Your task to perform on an android device: uninstall "Airtel Thanks" Image 0: 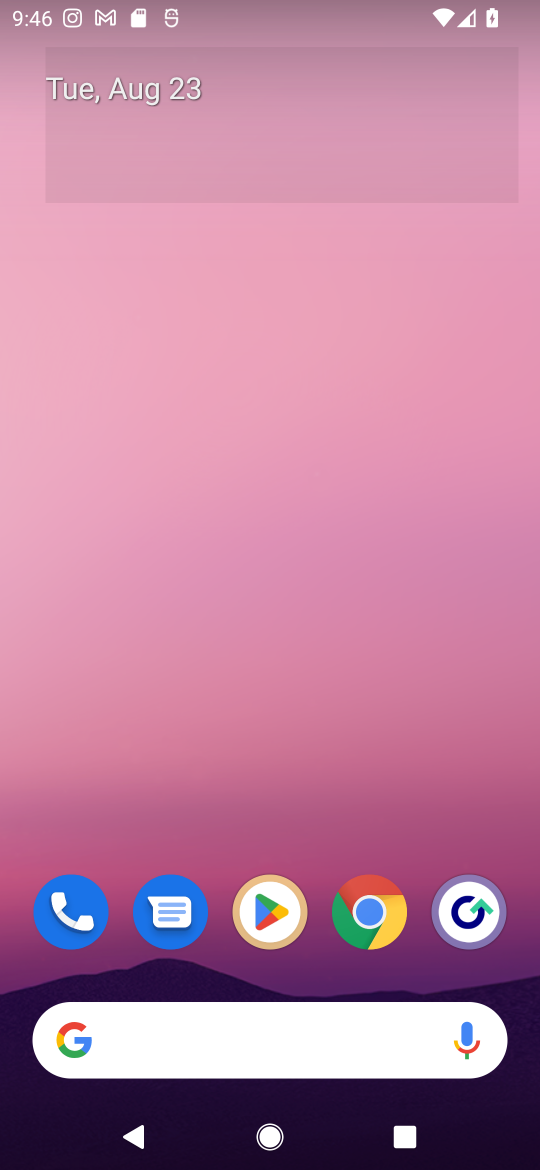
Step 0: click (271, 922)
Your task to perform on an android device: uninstall "Airtel Thanks" Image 1: 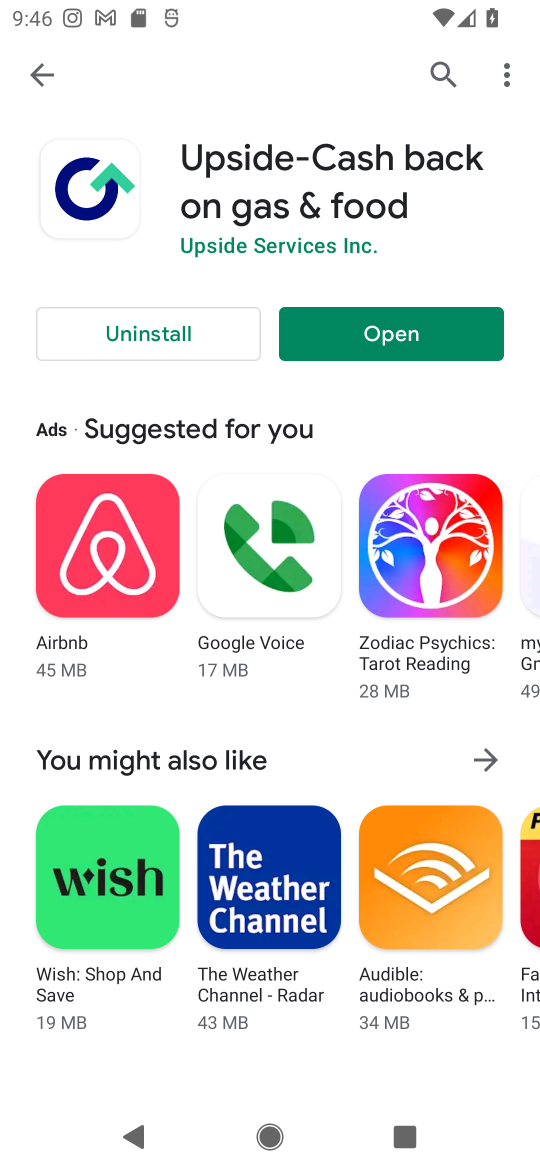
Step 1: click (441, 70)
Your task to perform on an android device: uninstall "Airtel Thanks" Image 2: 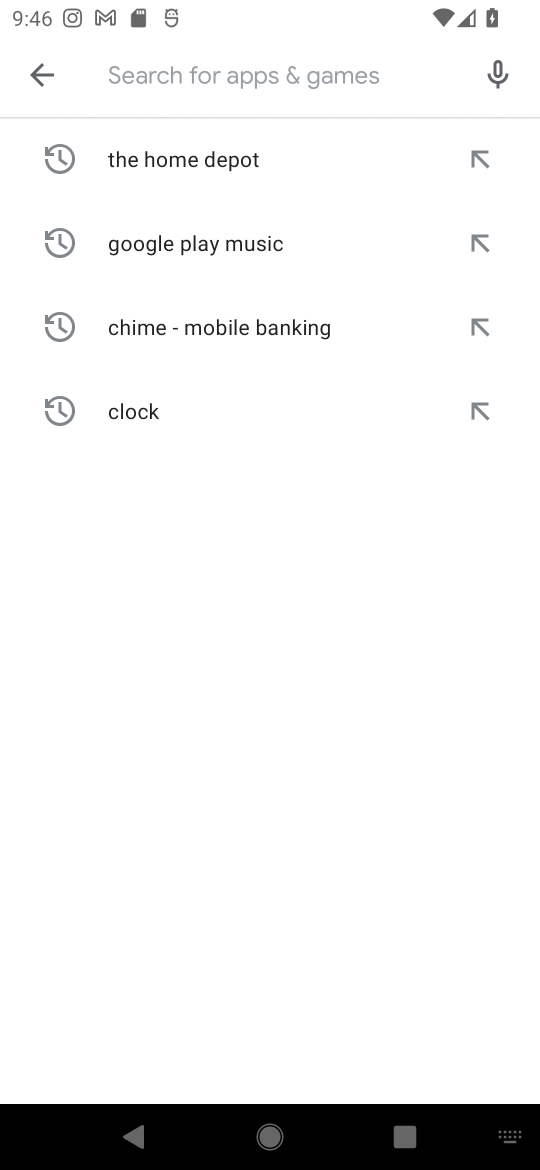
Step 2: type "Airtel Thanks"
Your task to perform on an android device: uninstall "Airtel Thanks" Image 3: 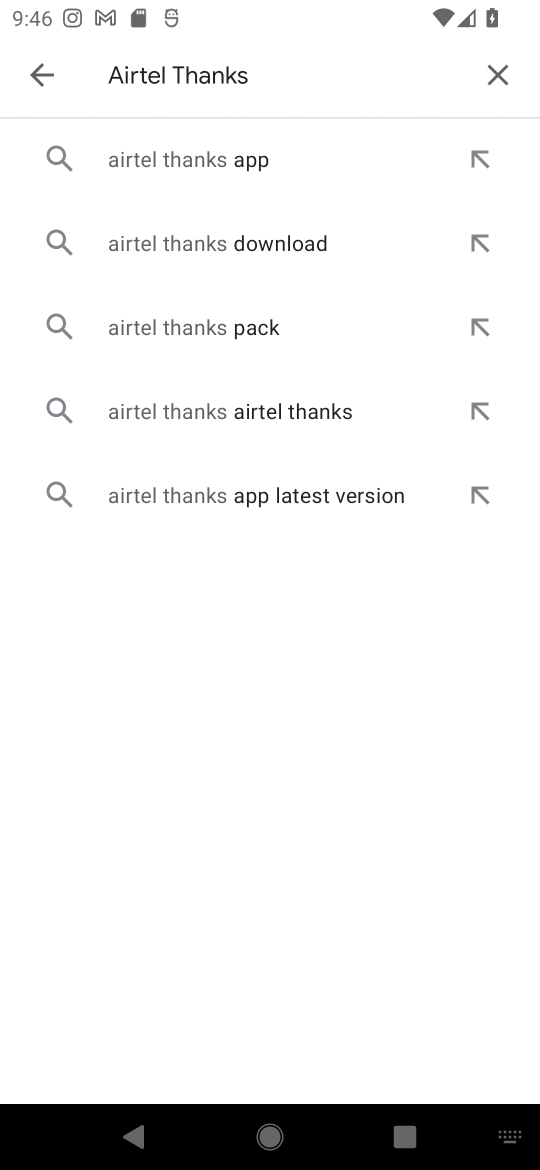
Step 3: click (197, 152)
Your task to perform on an android device: uninstall "Airtel Thanks" Image 4: 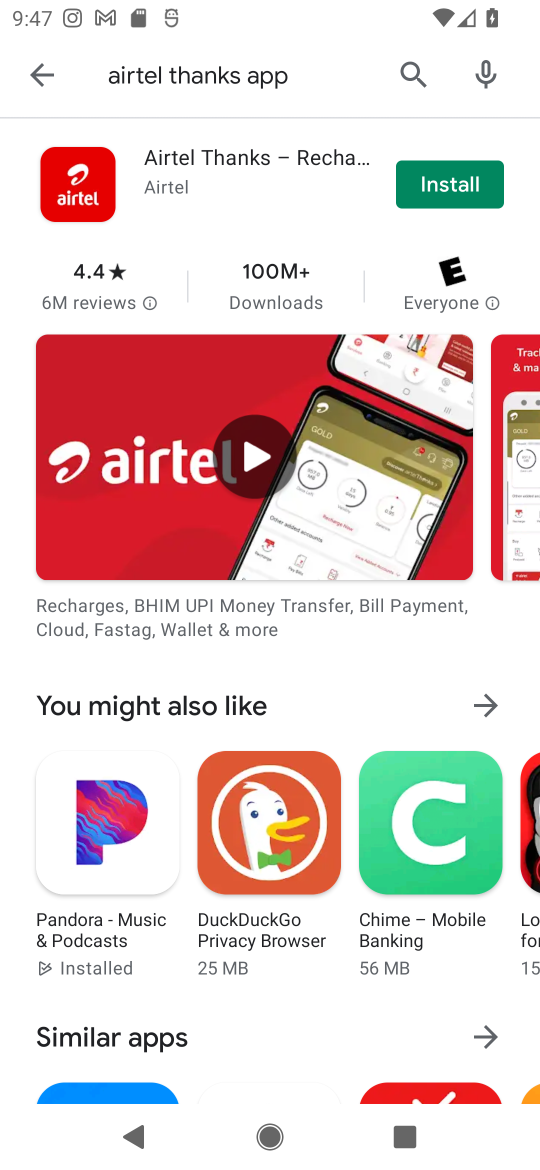
Step 4: click (206, 157)
Your task to perform on an android device: uninstall "Airtel Thanks" Image 5: 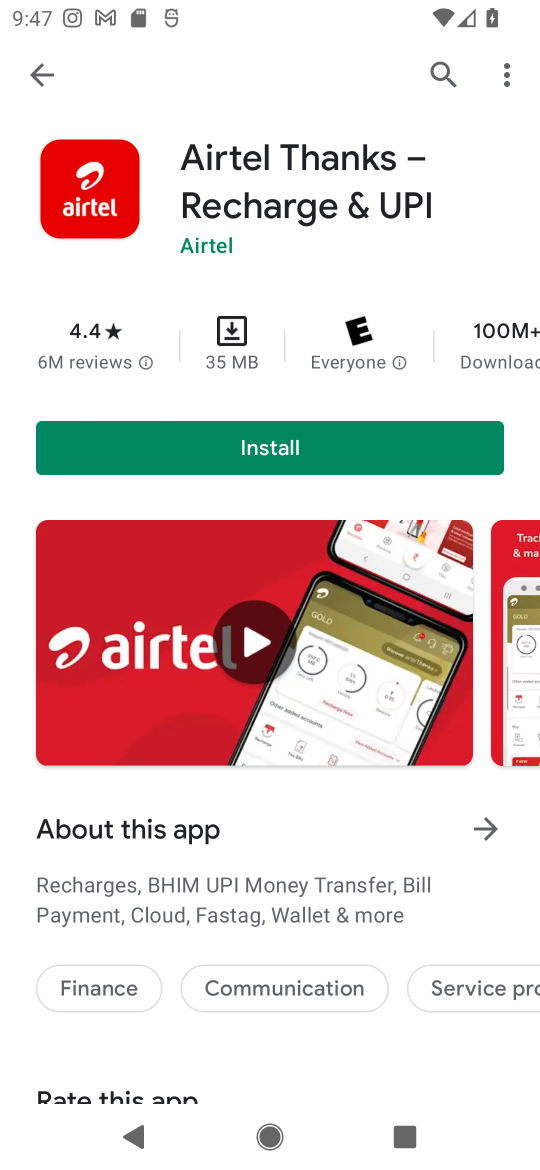
Step 5: task complete